Your task to perform on an android device: Show the shopping cart on newegg. Search for "apple airpods" on newegg, select the first entry, add it to the cart, then select checkout. Image 0: 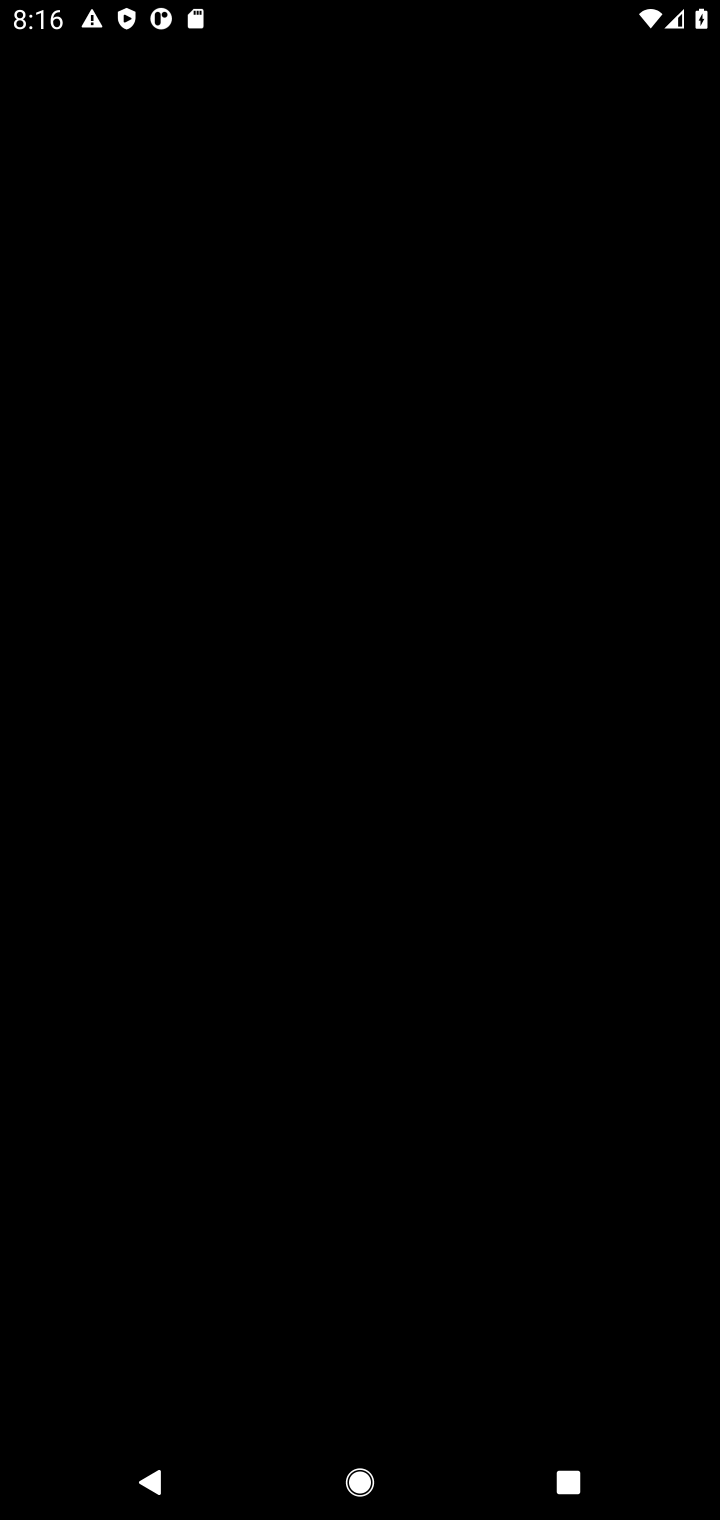
Step 0: press home button
Your task to perform on an android device: Show the shopping cart on newegg. Search for "apple airpods" on newegg, select the first entry, add it to the cart, then select checkout. Image 1: 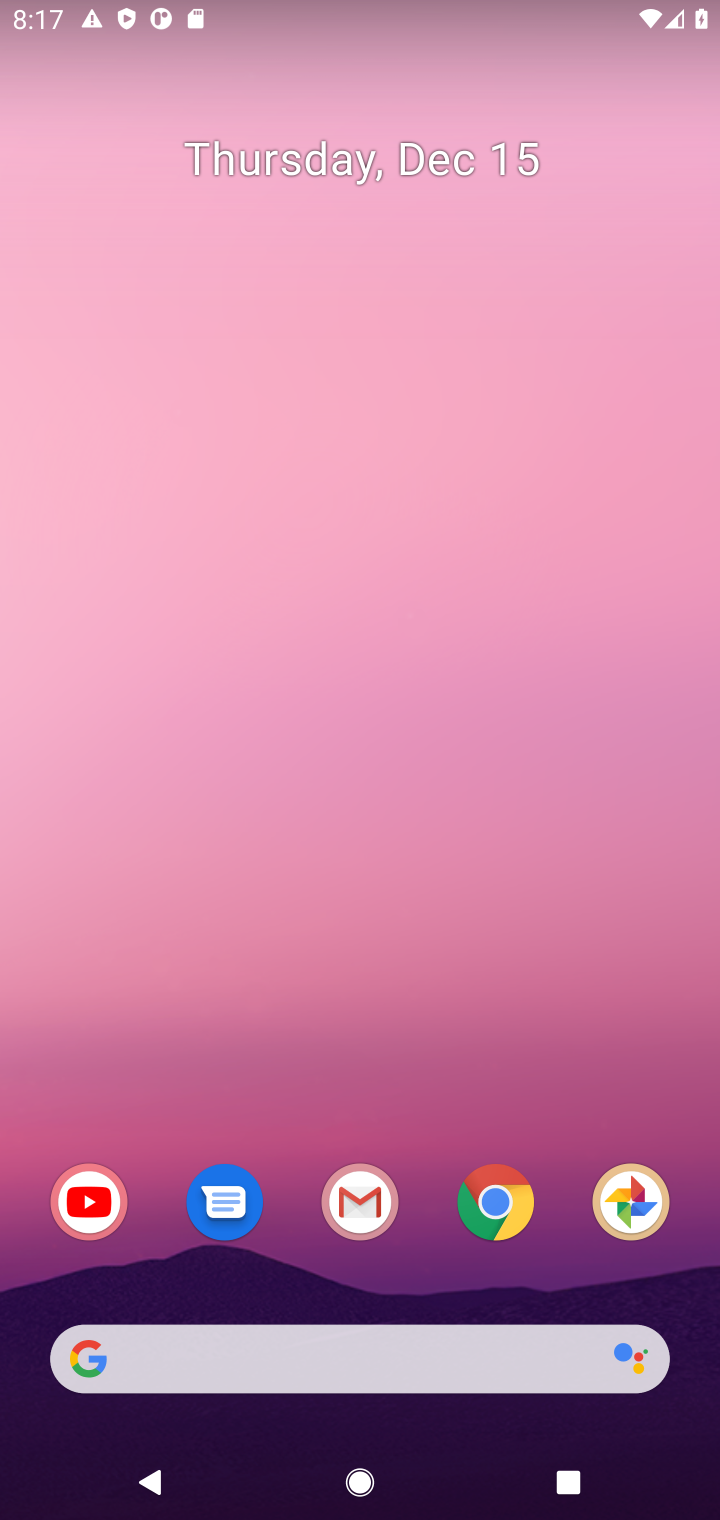
Step 1: click (513, 1221)
Your task to perform on an android device: Show the shopping cart on newegg. Search for "apple airpods" on newegg, select the first entry, add it to the cart, then select checkout. Image 2: 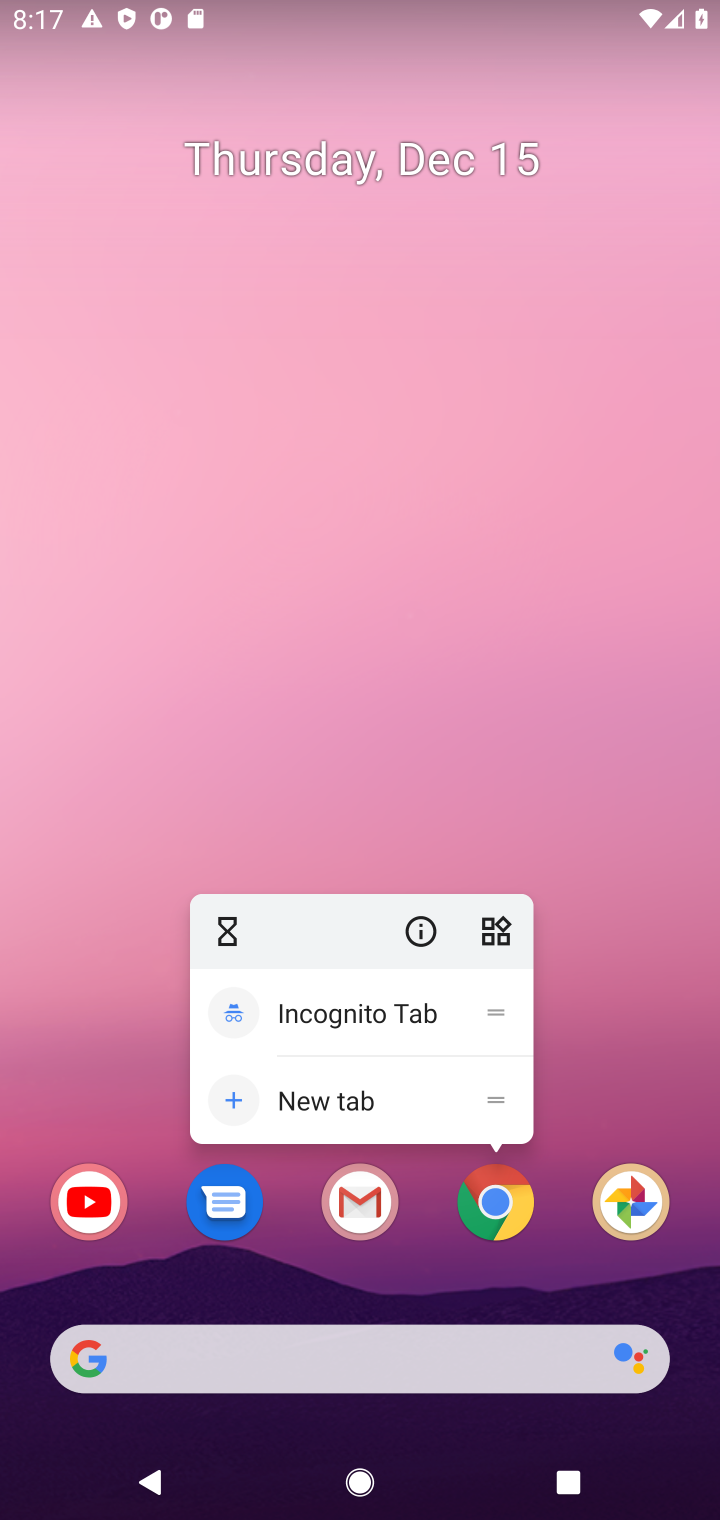
Step 2: click (490, 1215)
Your task to perform on an android device: Show the shopping cart on newegg. Search for "apple airpods" on newegg, select the first entry, add it to the cart, then select checkout. Image 3: 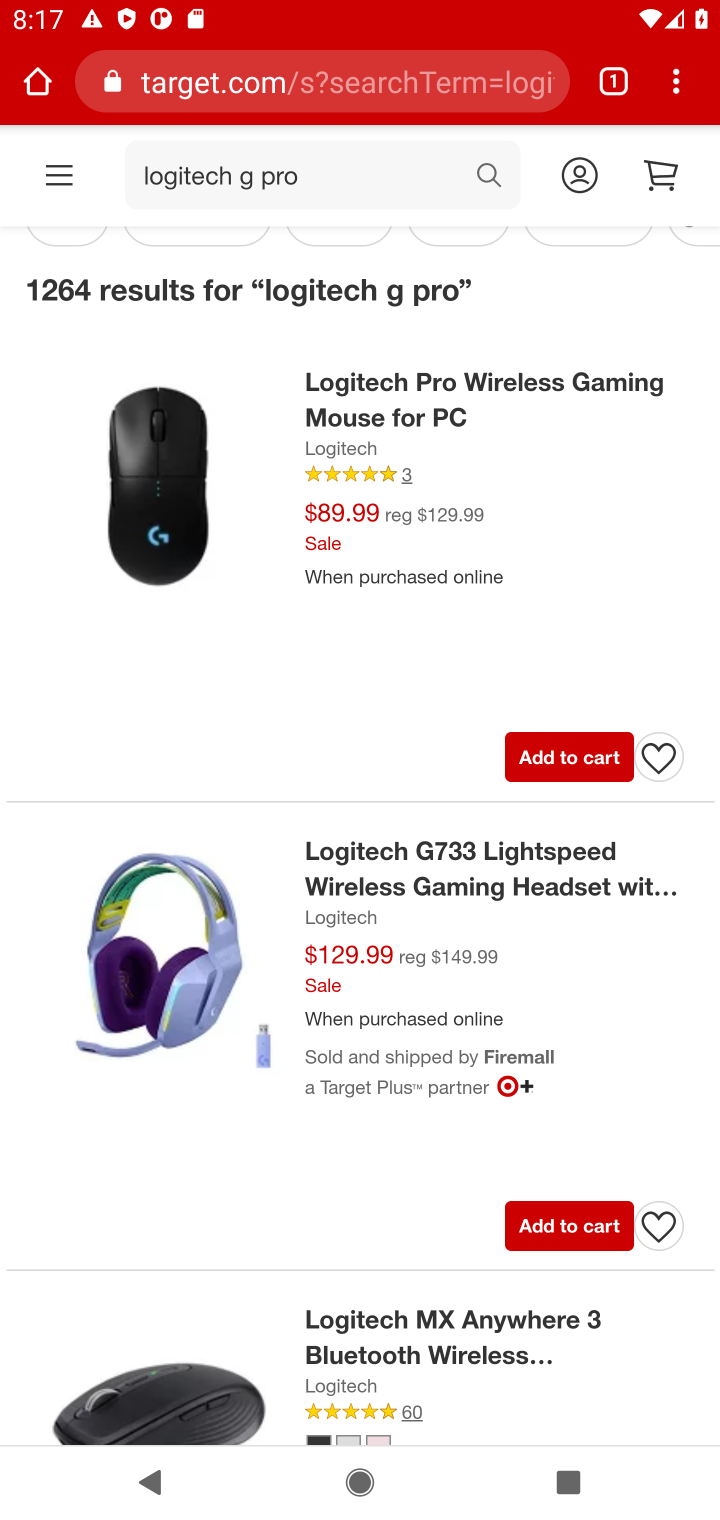
Step 3: click (293, 93)
Your task to perform on an android device: Show the shopping cart on newegg. Search for "apple airpods" on newegg, select the first entry, add it to the cart, then select checkout. Image 4: 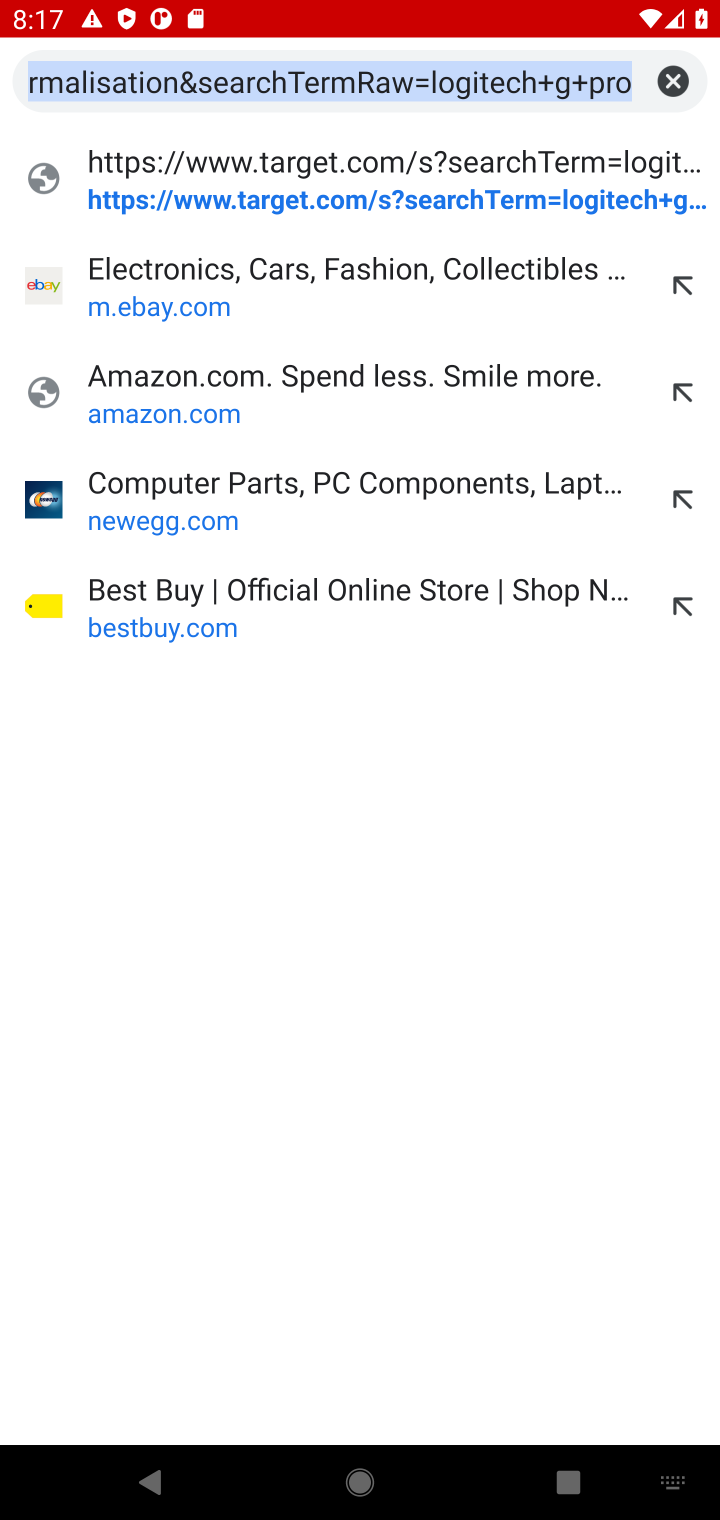
Step 4: click (128, 506)
Your task to perform on an android device: Show the shopping cart on newegg. Search for "apple airpods" on newegg, select the first entry, add it to the cart, then select checkout. Image 5: 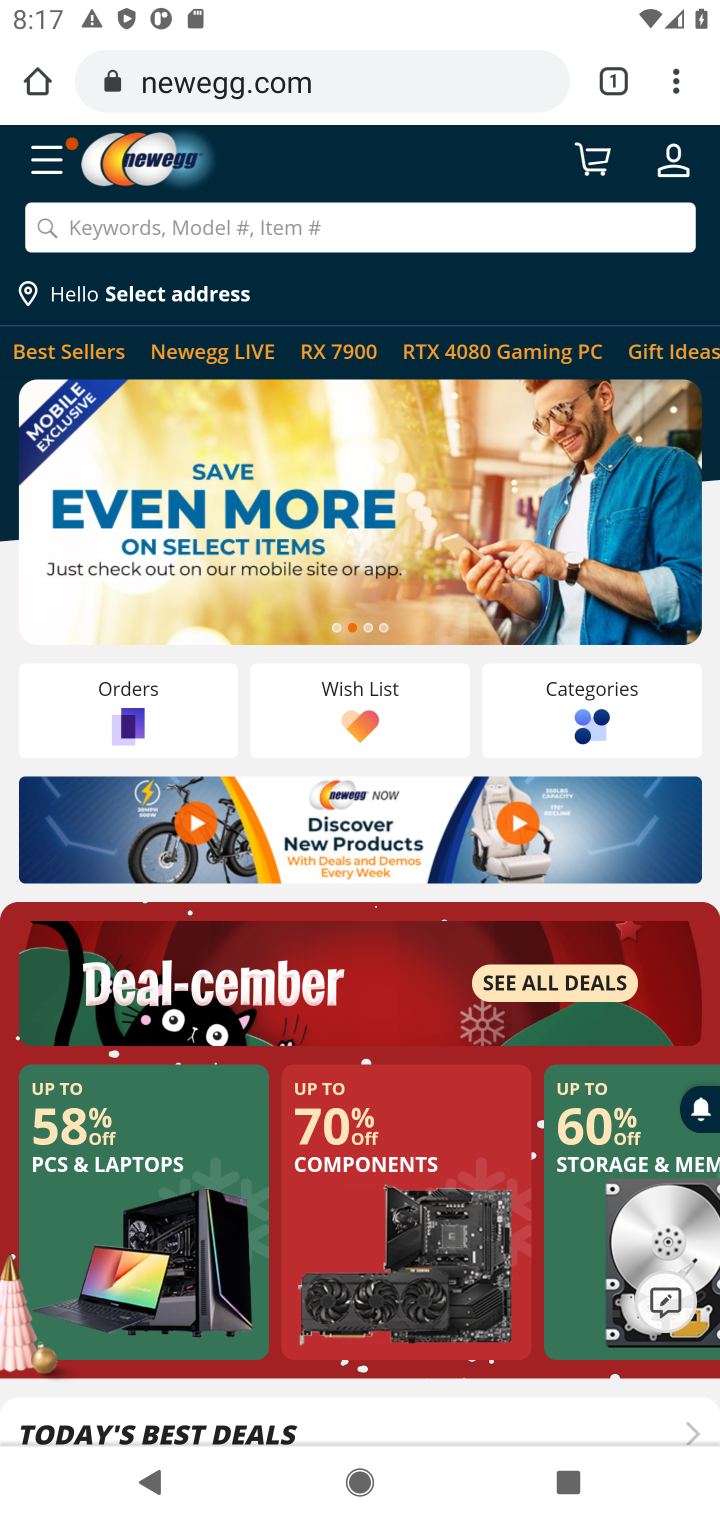
Step 5: click (594, 171)
Your task to perform on an android device: Show the shopping cart on newegg. Search for "apple airpods" on newegg, select the first entry, add it to the cart, then select checkout. Image 6: 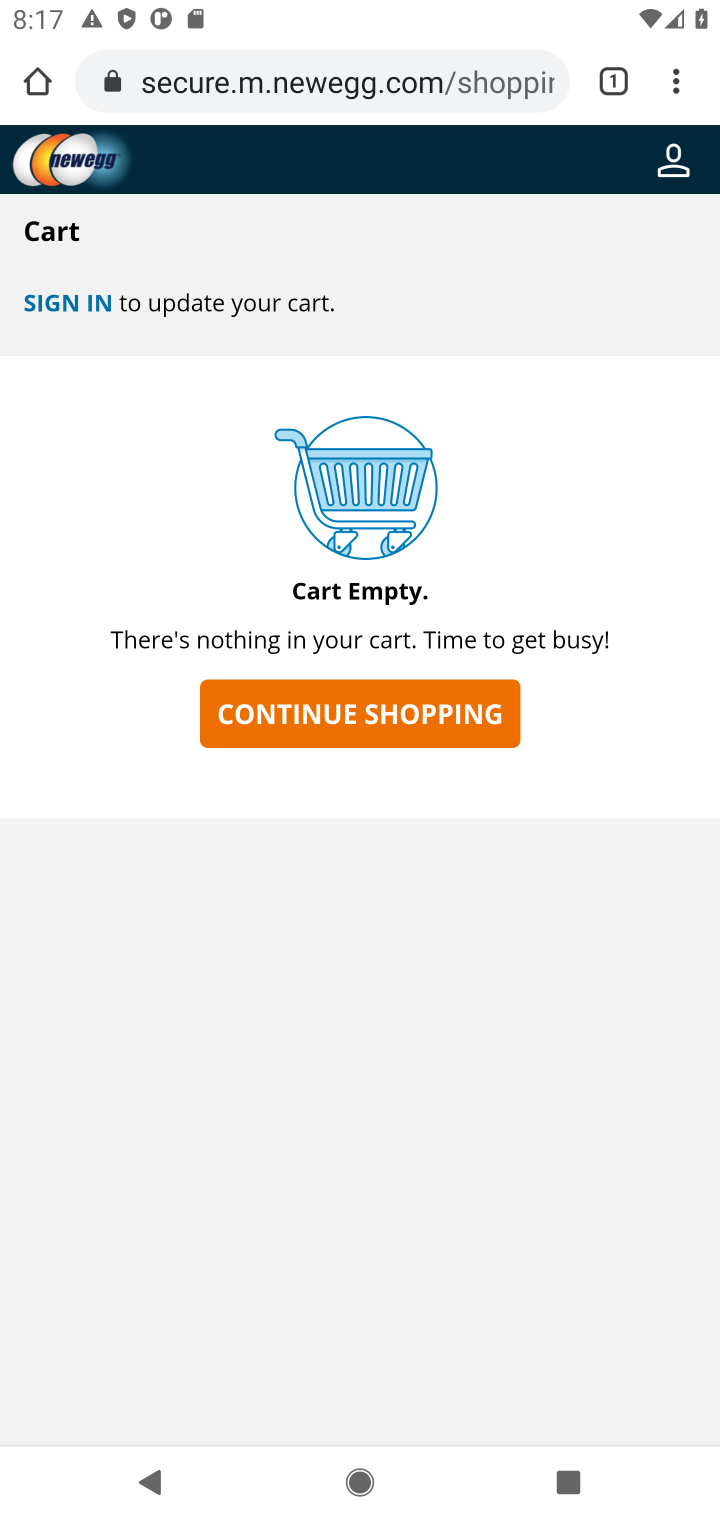
Step 6: click (365, 715)
Your task to perform on an android device: Show the shopping cart on newegg. Search for "apple airpods" on newegg, select the first entry, add it to the cart, then select checkout. Image 7: 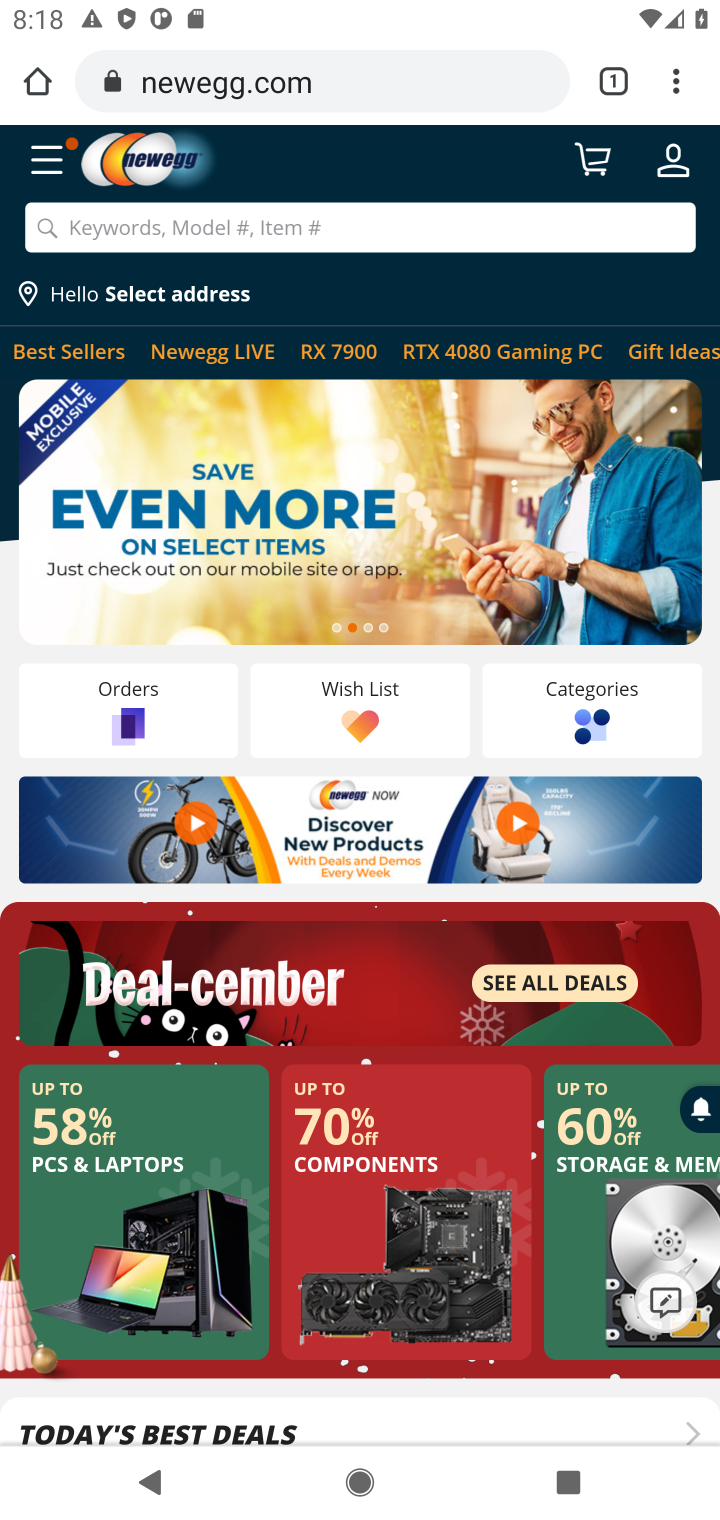
Step 7: click (131, 231)
Your task to perform on an android device: Show the shopping cart on newegg. Search for "apple airpods" on newegg, select the first entry, add it to the cart, then select checkout. Image 8: 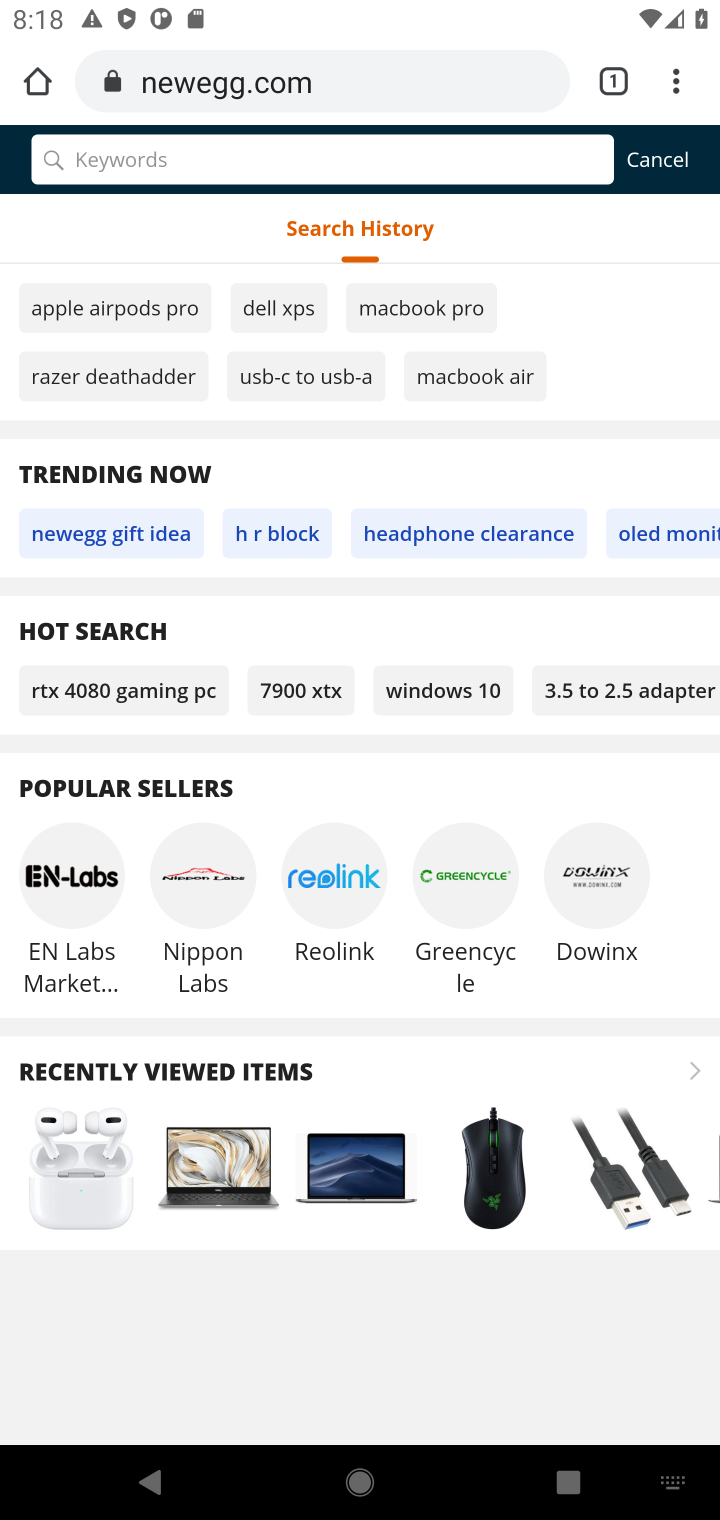
Step 8: type "apple airpods"
Your task to perform on an android device: Show the shopping cart on newegg. Search for "apple airpods" on newegg, select the first entry, add it to the cart, then select checkout. Image 9: 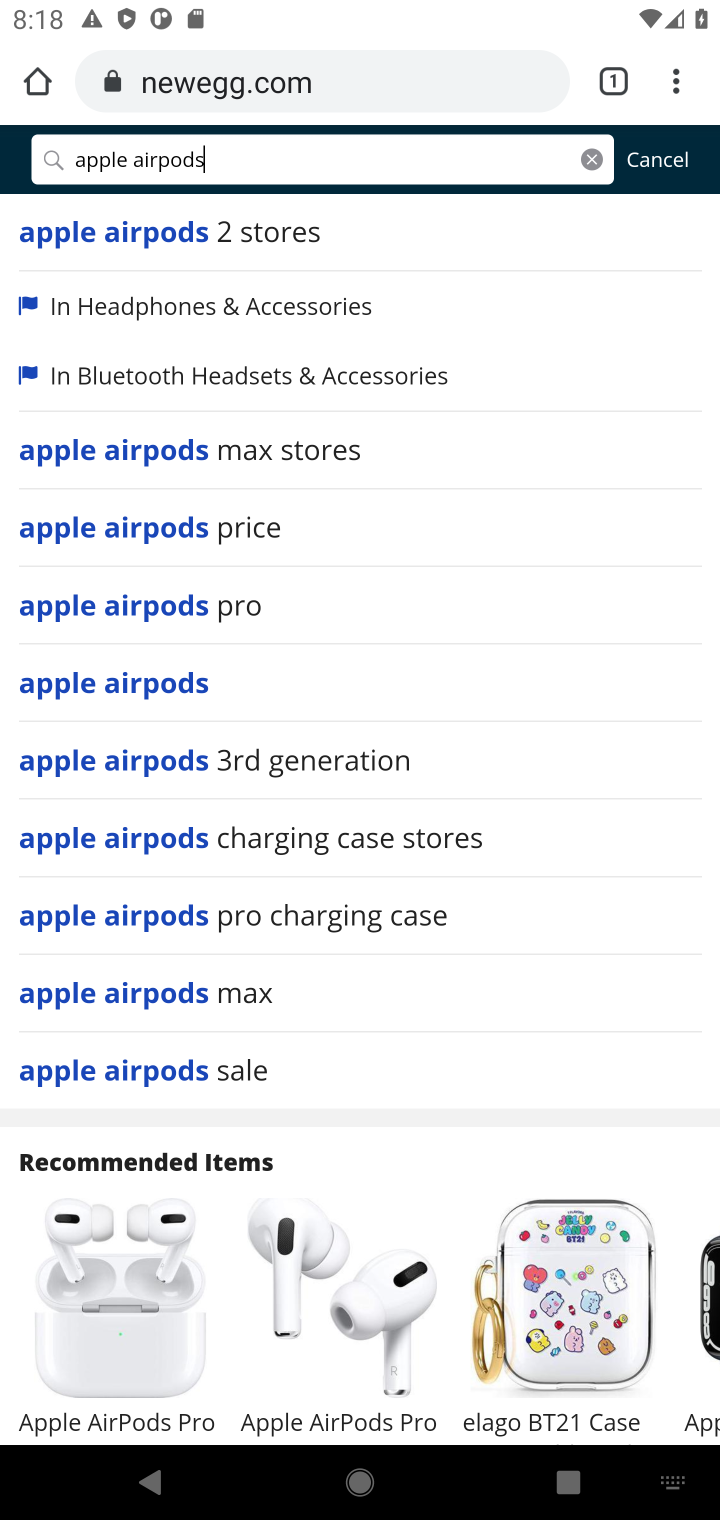
Step 9: click (140, 692)
Your task to perform on an android device: Show the shopping cart on newegg. Search for "apple airpods" on newegg, select the first entry, add it to the cart, then select checkout. Image 10: 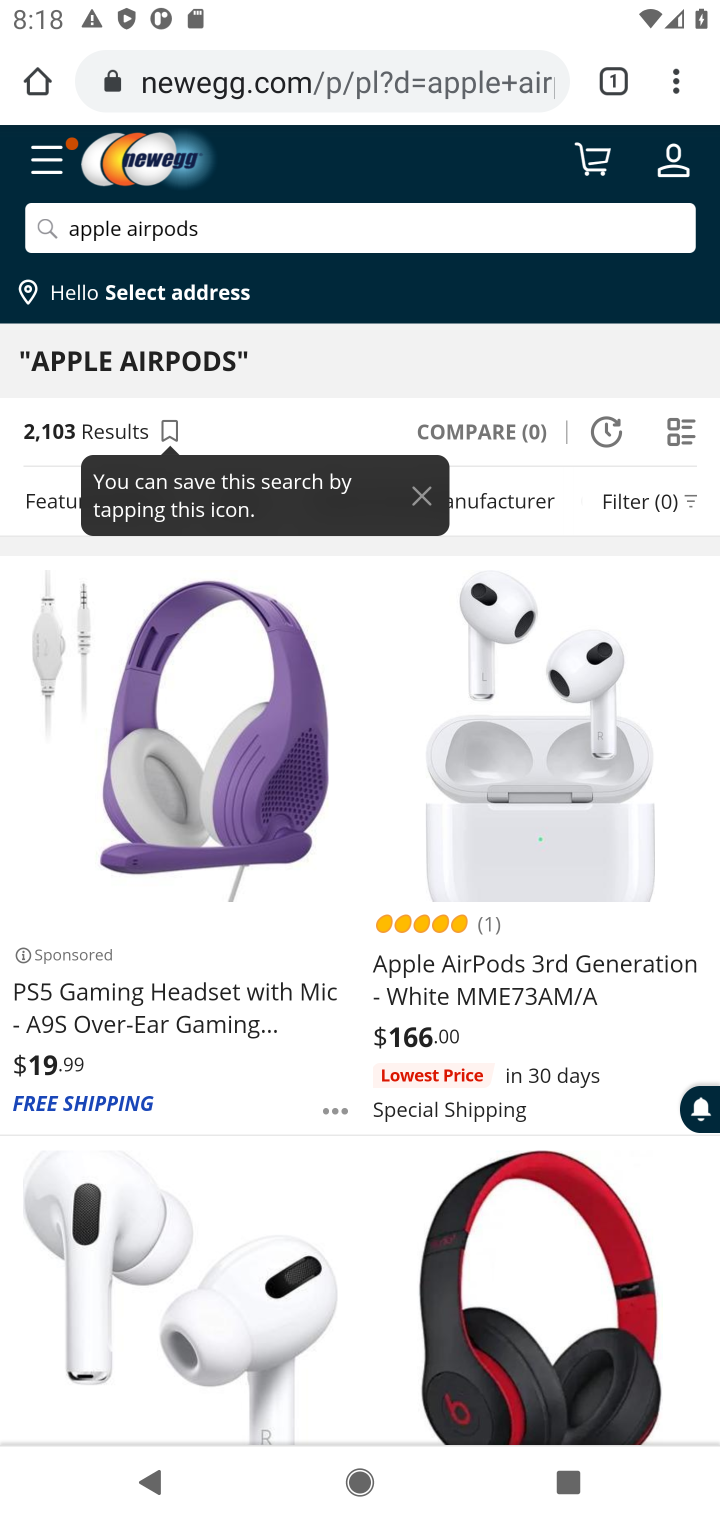
Step 10: task complete